Your task to perform on an android device: Search for vegetarian restaurants on Maps Image 0: 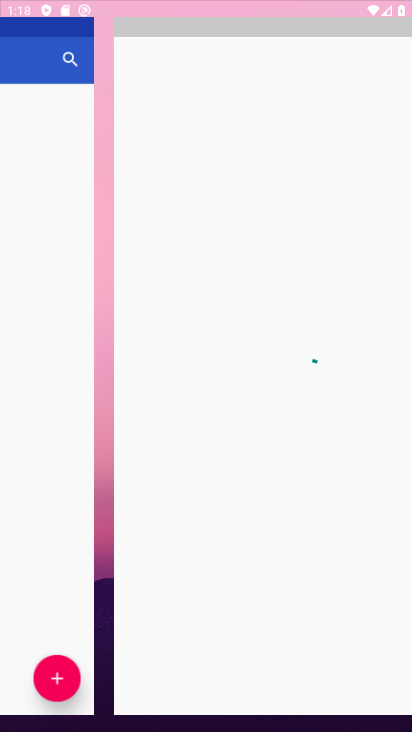
Step 0: press home button
Your task to perform on an android device: Search for vegetarian restaurants on Maps Image 1: 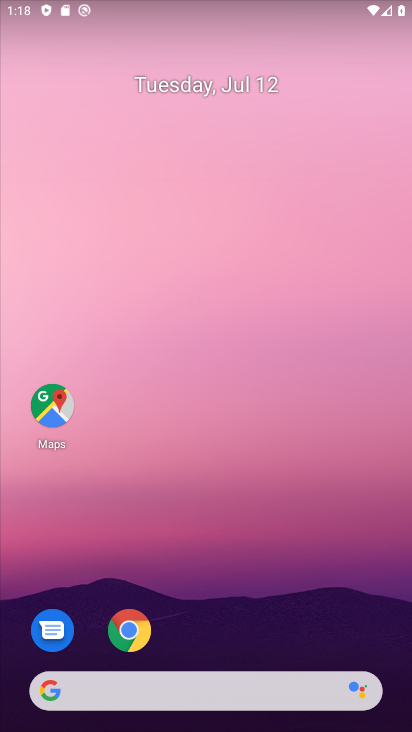
Step 1: click (49, 424)
Your task to perform on an android device: Search for vegetarian restaurants on Maps Image 2: 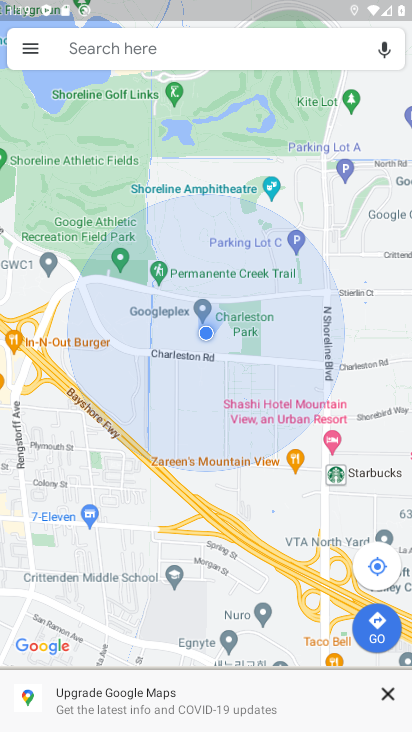
Step 2: type "vegetarian restaurants"
Your task to perform on an android device: Search for vegetarian restaurants on Maps Image 3: 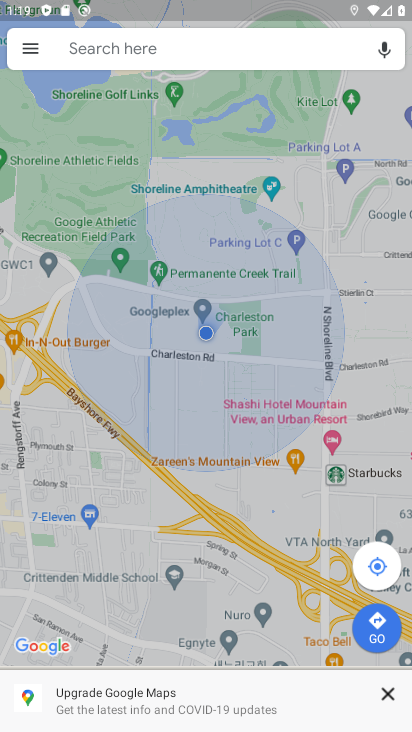
Step 3: type ""
Your task to perform on an android device: Search for vegetarian restaurants on Maps Image 4: 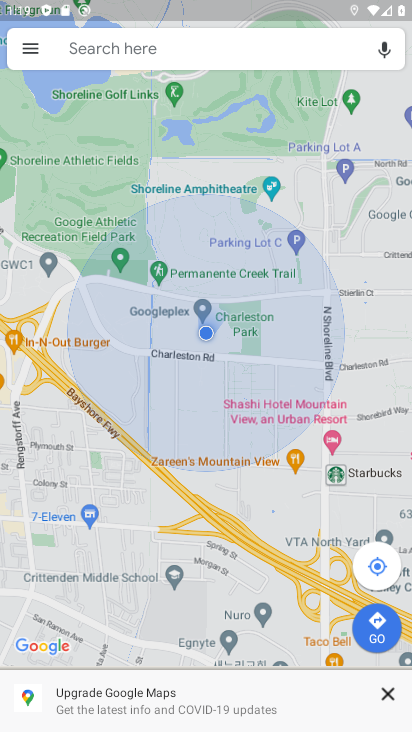
Step 4: click (211, 50)
Your task to perform on an android device: Search for vegetarian restaurants on Maps Image 5: 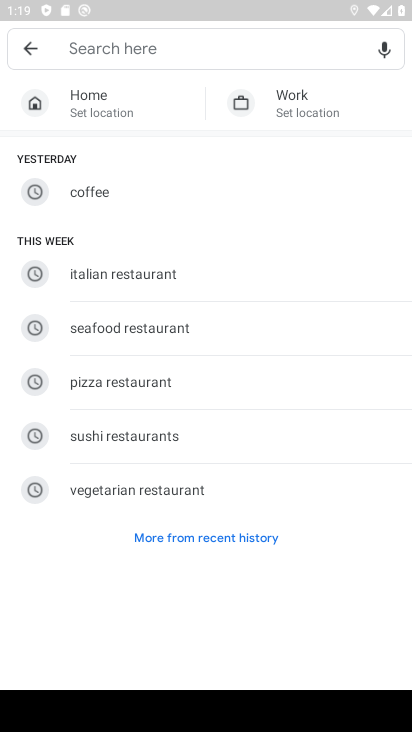
Step 5: click (118, 492)
Your task to perform on an android device: Search for vegetarian restaurants on Maps Image 6: 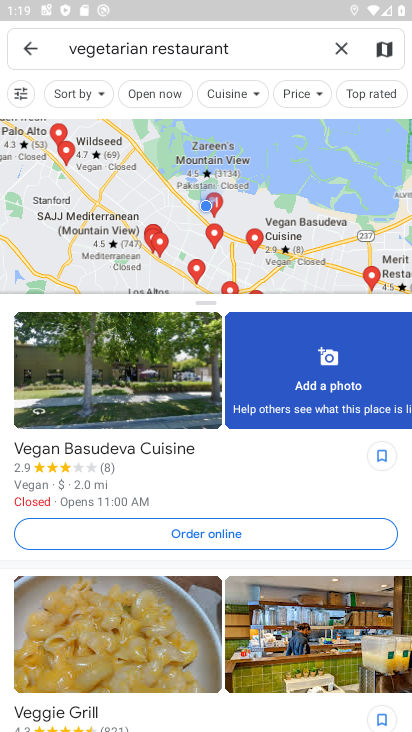
Step 6: task complete